Your task to perform on an android device: Open the calendar app, open the side menu, and click the "Day" option Image 0: 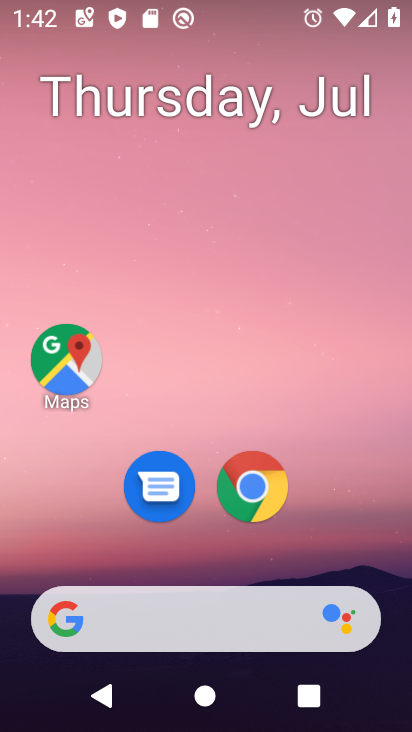
Step 0: drag from (147, 551) to (258, 0)
Your task to perform on an android device: Open the calendar app, open the side menu, and click the "Day" option Image 1: 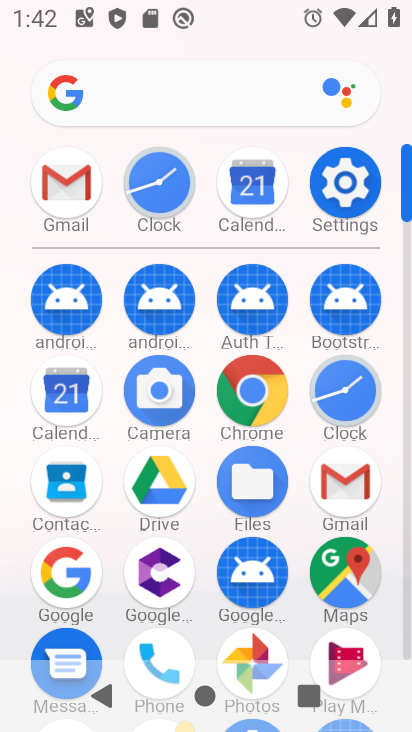
Step 1: click (63, 407)
Your task to perform on an android device: Open the calendar app, open the side menu, and click the "Day" option Image 2: 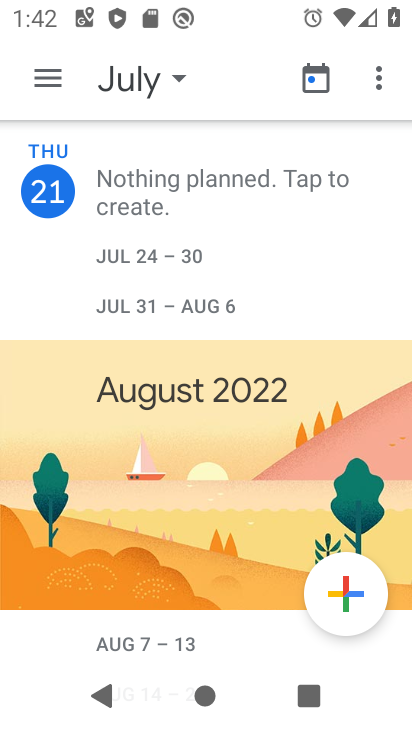
Step 2: click (59, 71)
Your task to perform on an android device: Open the calendar app, open the side menu, and click the "Day" option Image 3: 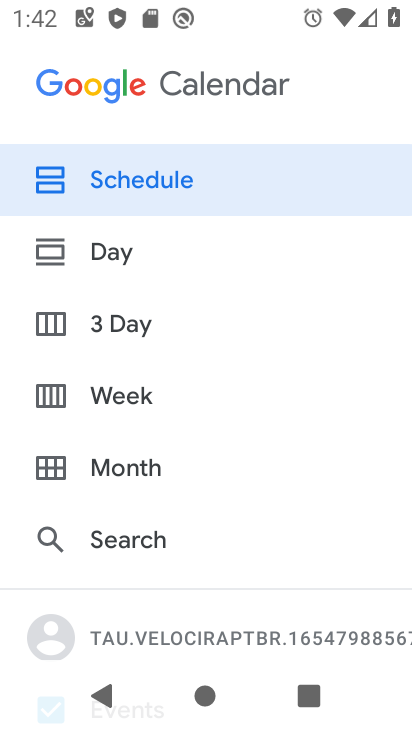
Step 3: click (113, 261)
Your task to perform on an android device: Open the calendar app, open the side menu, and click the "Day" option Image 4: 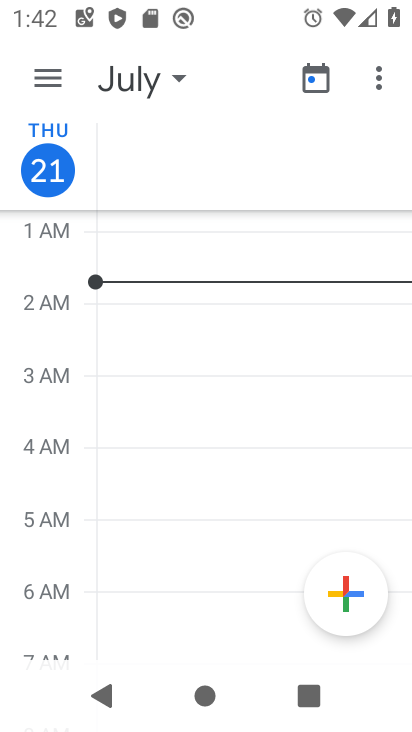
Step 4: click (47, 73)
Your task to perform on an android device: Open the calendar app, open the side menu, and click the "Day" option Image 5: 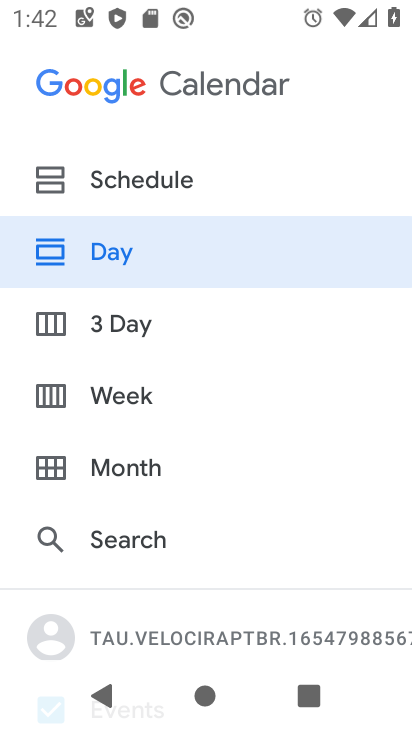
Step 5: click (109, 238)
Your task to perform on an android device: Open the calendar app, open the side menu, and click the "Day" option Image 6: 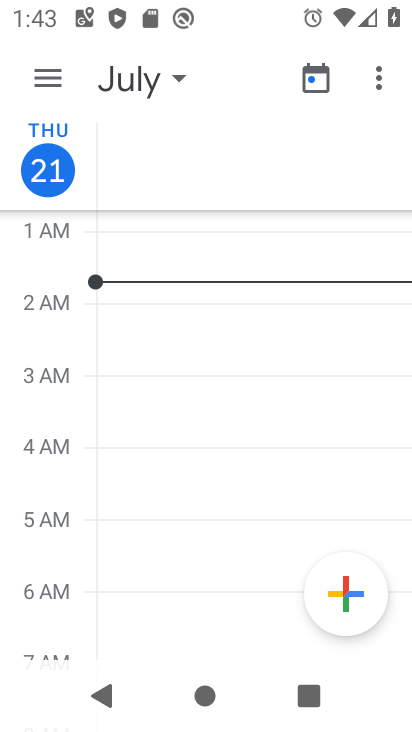
Step 6: task complete